Your task to perform on an android device: Go to Reddit.com Image 0: 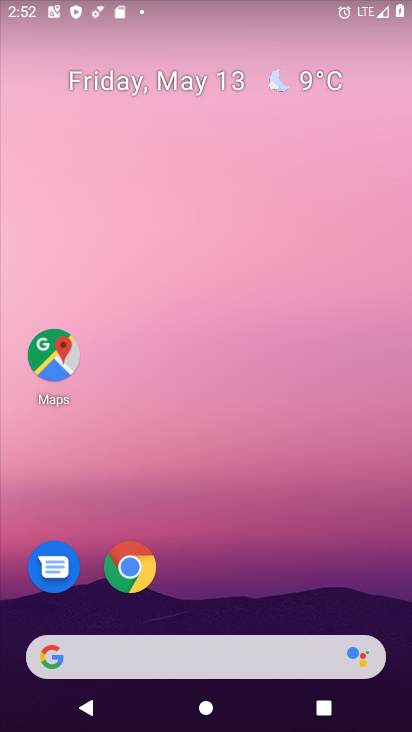
Step 0: drag from (242, 605) to (271, 8)
Your task to perform on an android device: Go to Reddit.com Image 1: 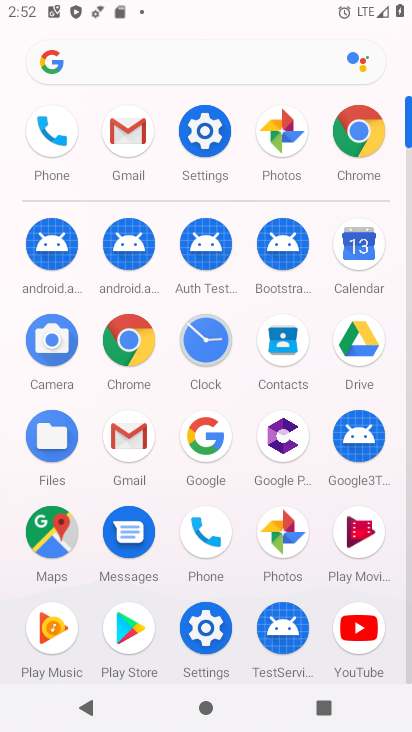
Step 1: click (114, 347)
Your task to perform on an android device: Go to Reddit.com Image 2: 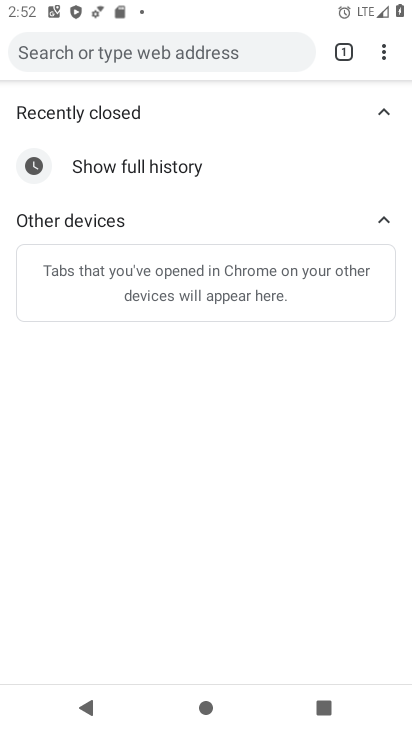
Step 2: click (168, 63)
Your task to perform on an android device: Go to Reddit.com Image 3: 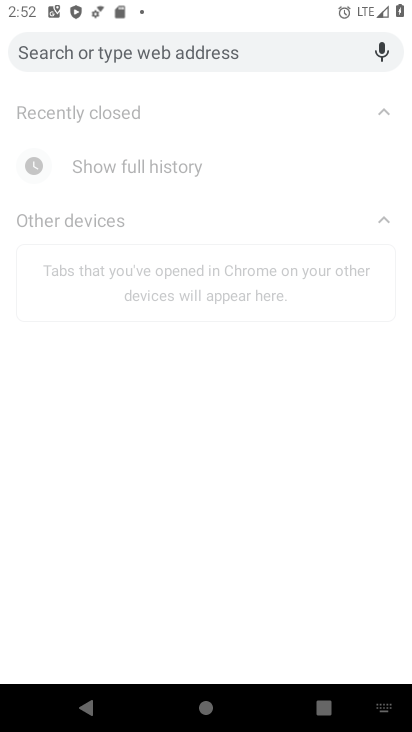
Step 3: type "reddit.com"
Your task to perform on an android device: Go to Reddit.com Image 4: 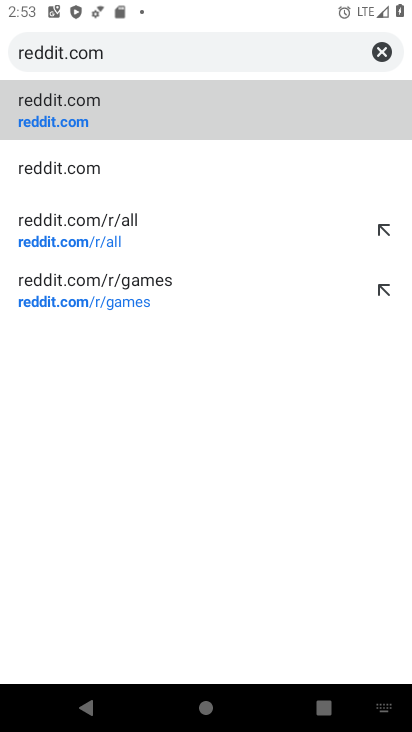
Step 4: click (58, 126)
Your task to perform on an android device: Go to Reddit.com Image 5: 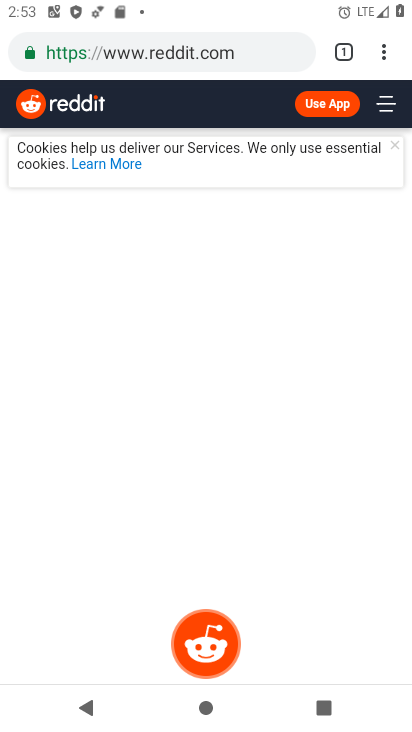
Step 5: task complete